Your task to perform on an android device: install app "ZOOM Cloud Meetings" Image 0: 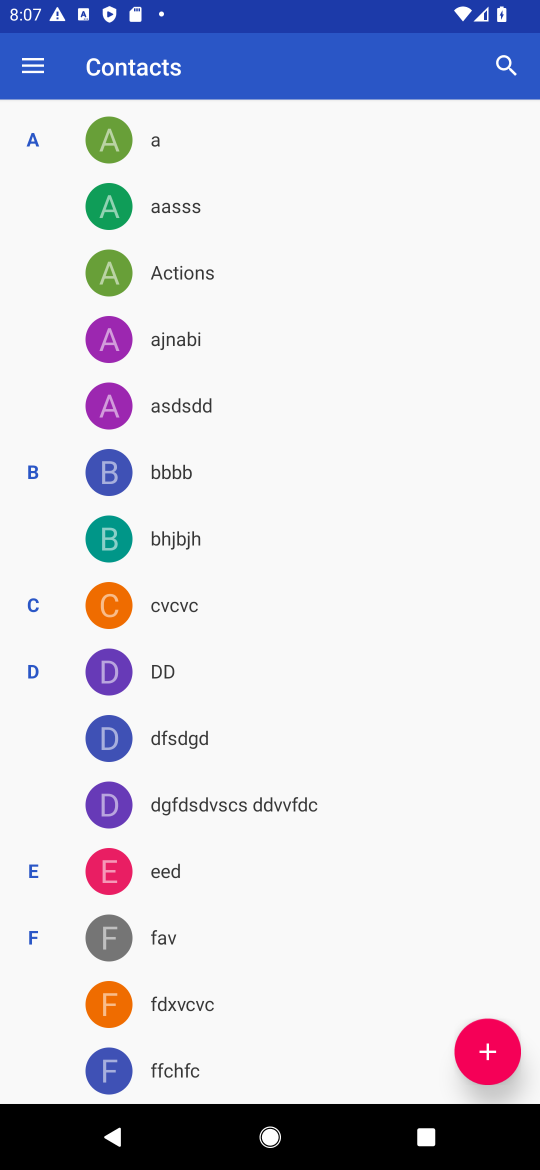
Step 0: press home button
Your task to perform on an android device: install app "ZOOM Cloud Meetings" Image 1: 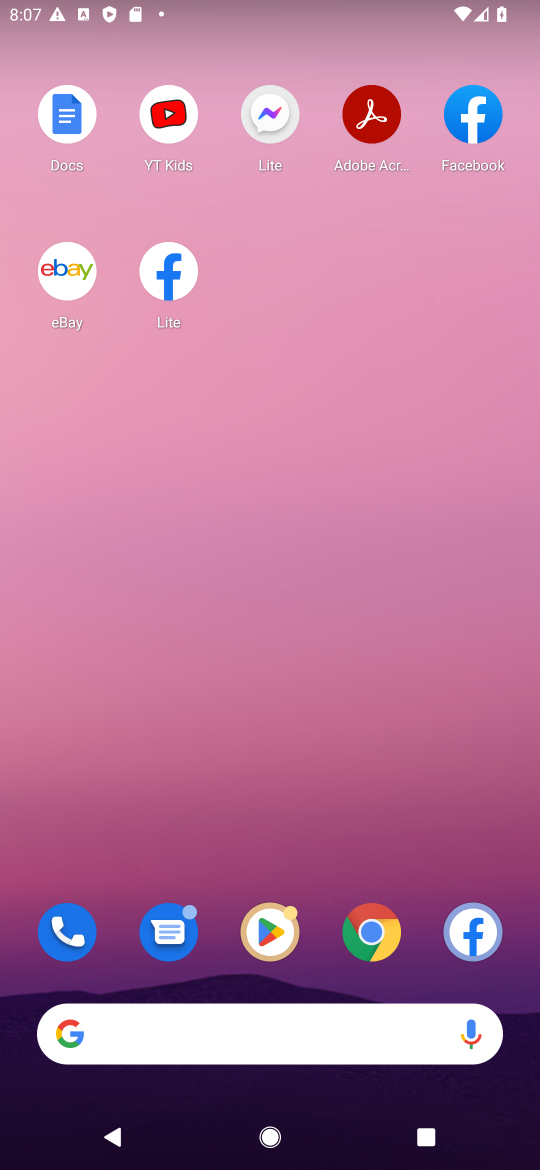
Step 1: click (283, 925)
Your task to perform on an android device: install app "ZOOM Cloud Meetings" Image 2: 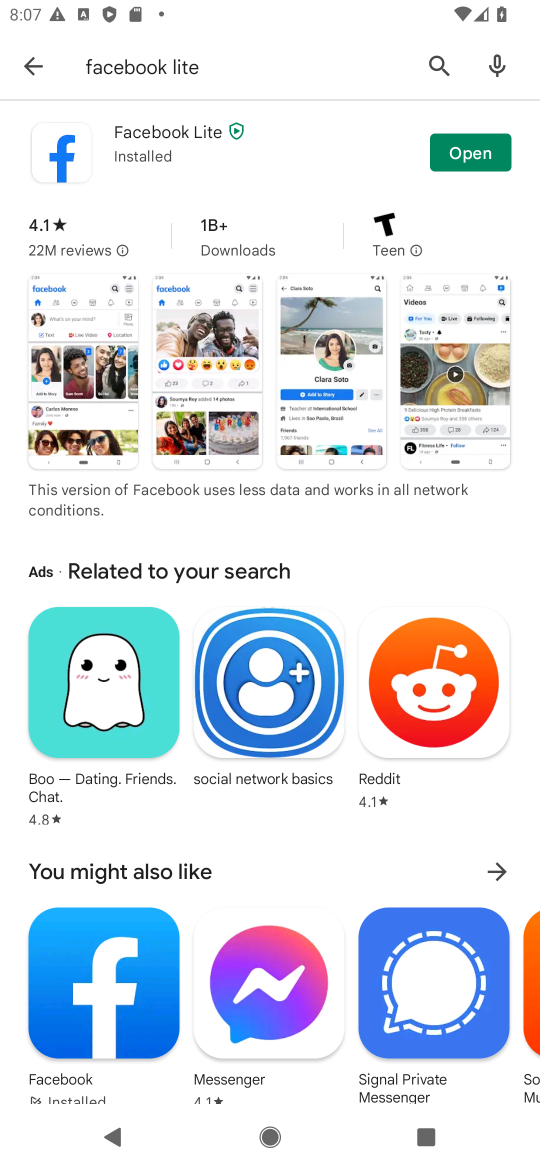
Step 2: click (242, 66)
Your task to perform on an android device: install app "ZOOM Cloud Meetings" Image 3: 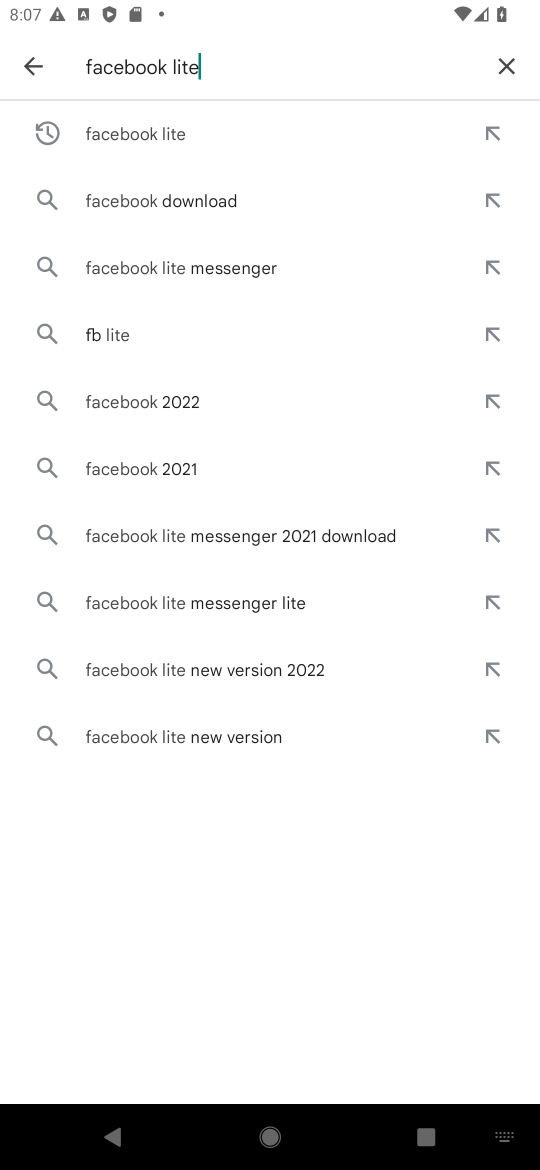
Step 3: click (504, 48)
Your task to perform on an android device: install app "ZOOM Cloud Meetings" Image 4: 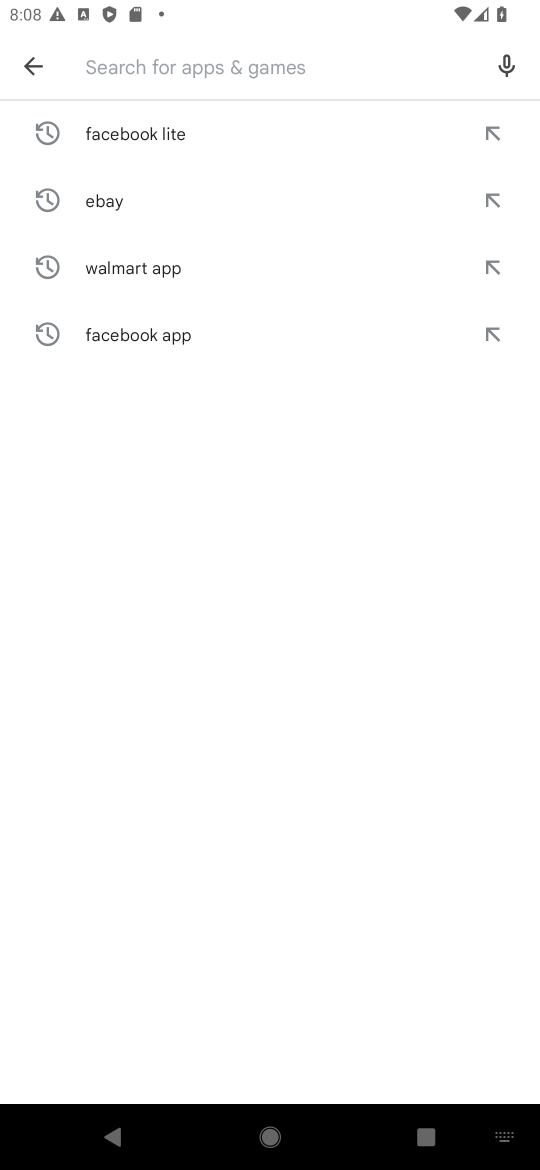
Step 4: type "zoom cloud meeting"
Your task to perform on an android device: install app "ZOOM Cloud Meetings" Image 5: 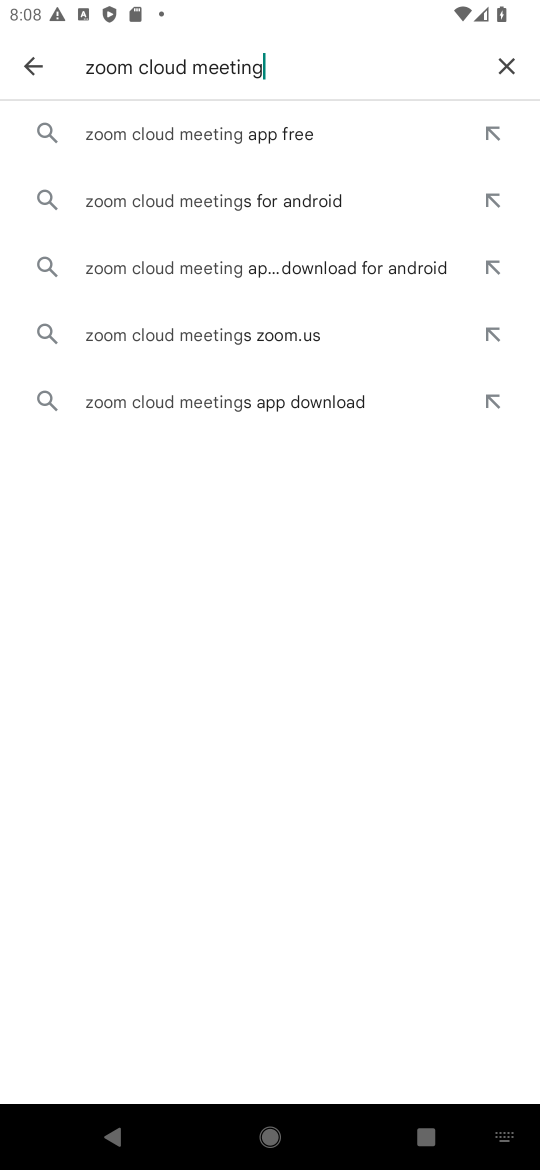
Step 5: click (200, 145)
Your task to perform on an android device: install app "ZOOM Cloud Meetings" Image 6: 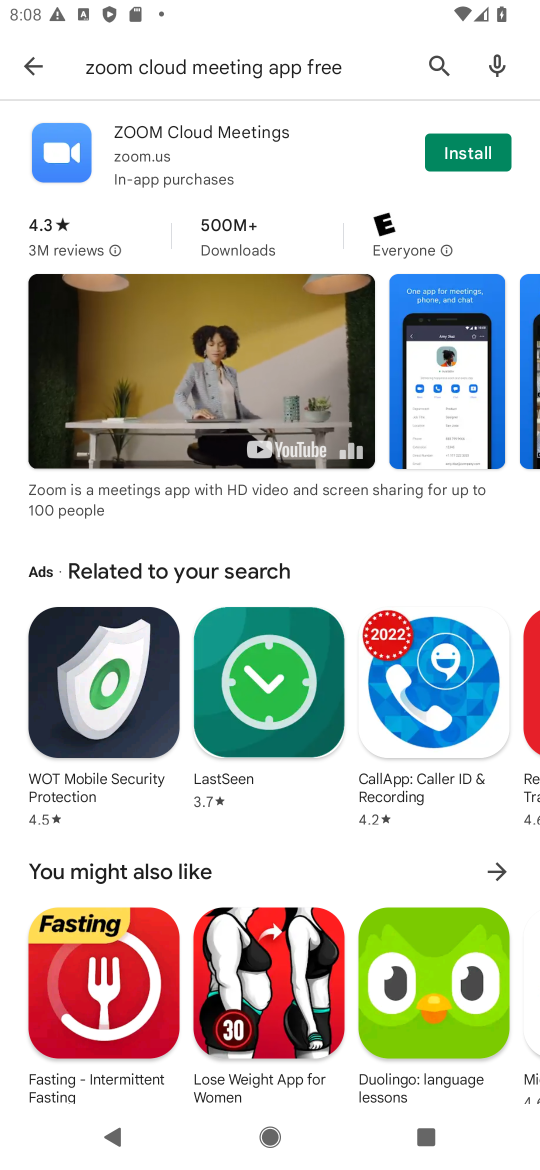
Step 6: click (474, 148)
Your task to perform on an android device: install app "ZOOM Cloud Meetings" Image 7: 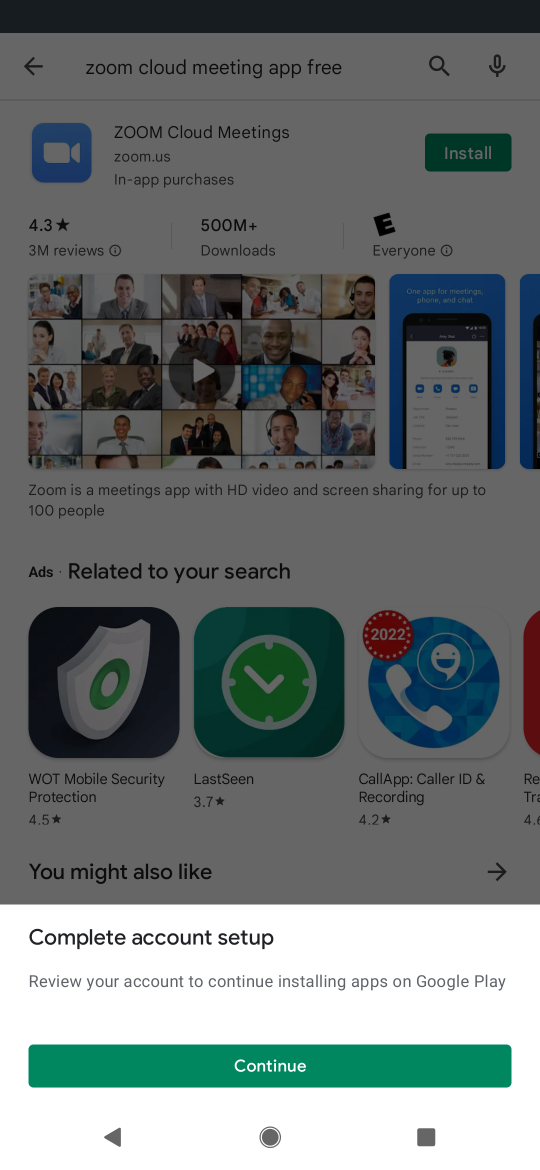
Step 7: click (291, 1057)
Your task to perform on an android device: install app "ZOOM Cloud Meetings" Image 8: 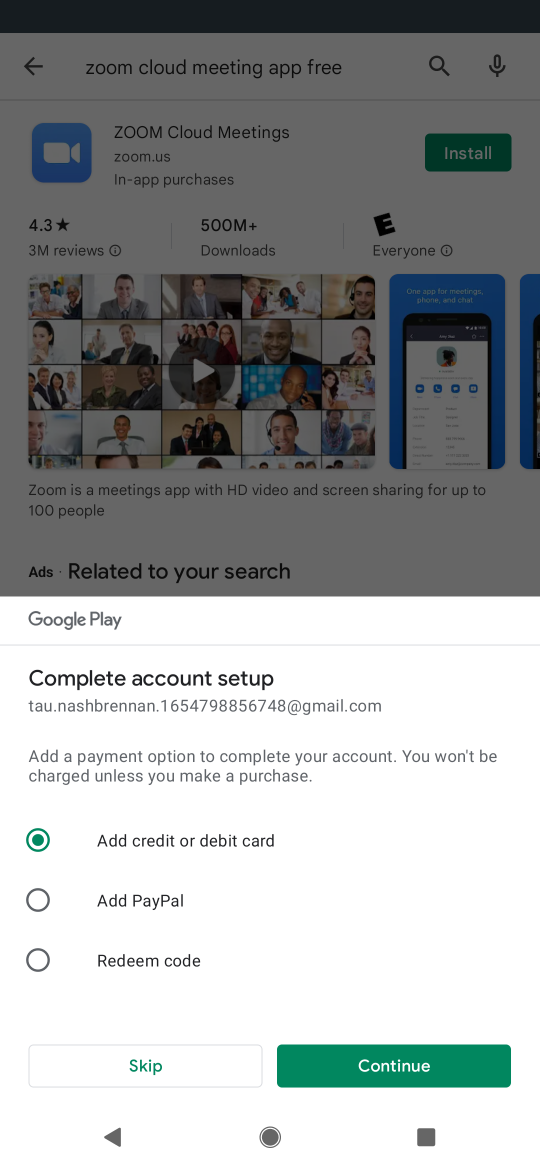
Step 8: click (135, 1071)
Your task to perform on an android device: install app "ZOOM Cloud Meetings" Image 9: 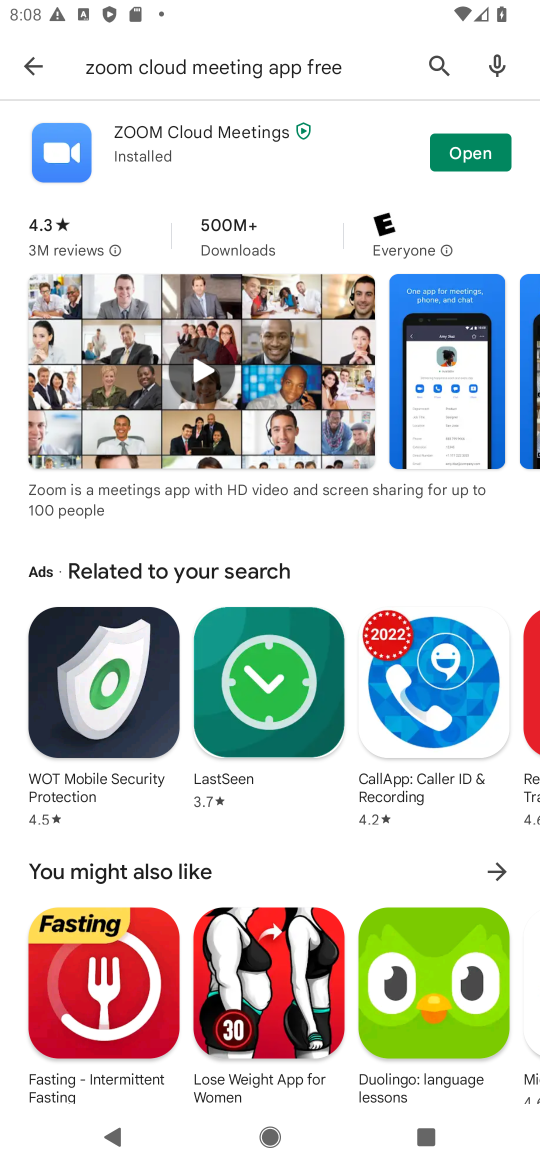
Step 9: task complete